Your task to perform on an android device: Do I have any events tomorrow? Image 0: 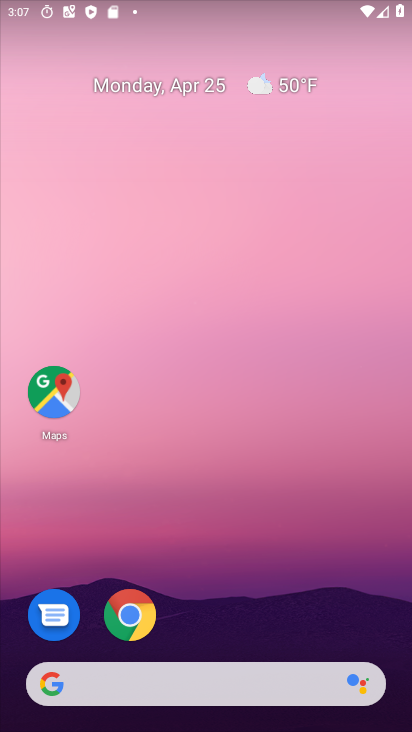
Step 0: drag from (199, 717) to (215, 131)
Your task to perform on an android device: Do I have any events tomorrow? Image 1: 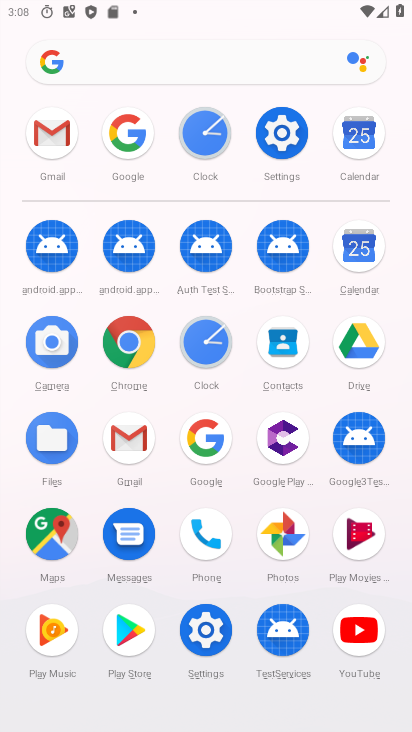
Step 1: click (363, 243)
Your task to perform on an android device: Do I have any events tomorrow? Image 2: 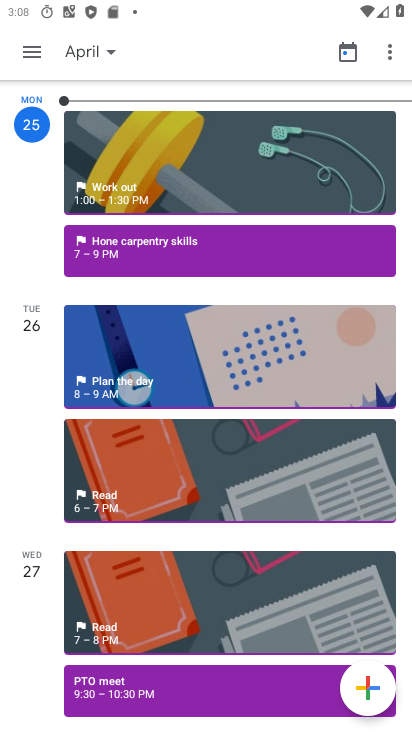
Step 2: click (82, 47)
Your task to perform on an android device: Do I have any events tomorrow? Image 3: 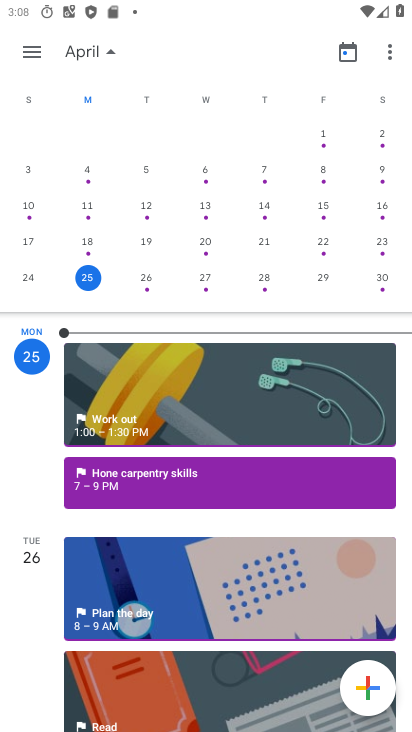
Step 3: click (142, 275)
Your task to perform on an android device: Do I have any events tomorrow? Image 4: 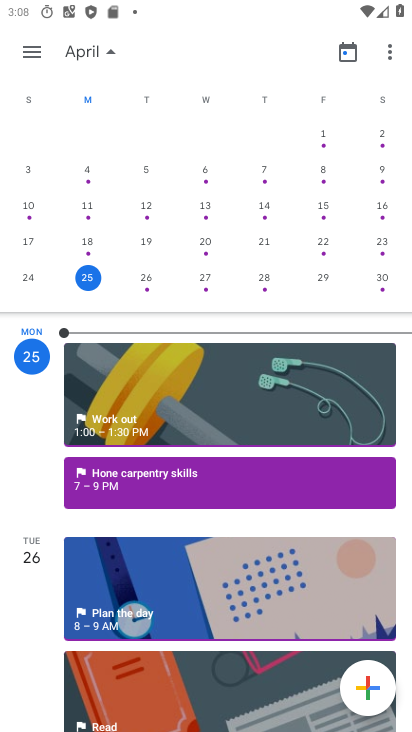
Step 4: click (148, 271)
Your task to perform on an android device: Do I have any events tomorrow? Image 5: 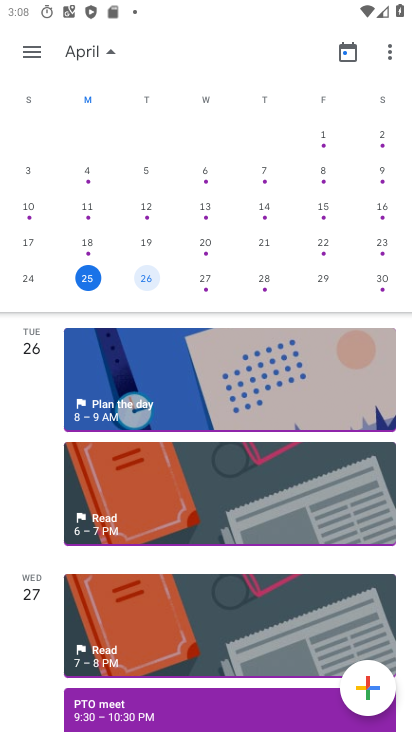
Step 5: task complete